Your task to perform on an android device: read, delete, or share a saved page in the chrome app Image 0: 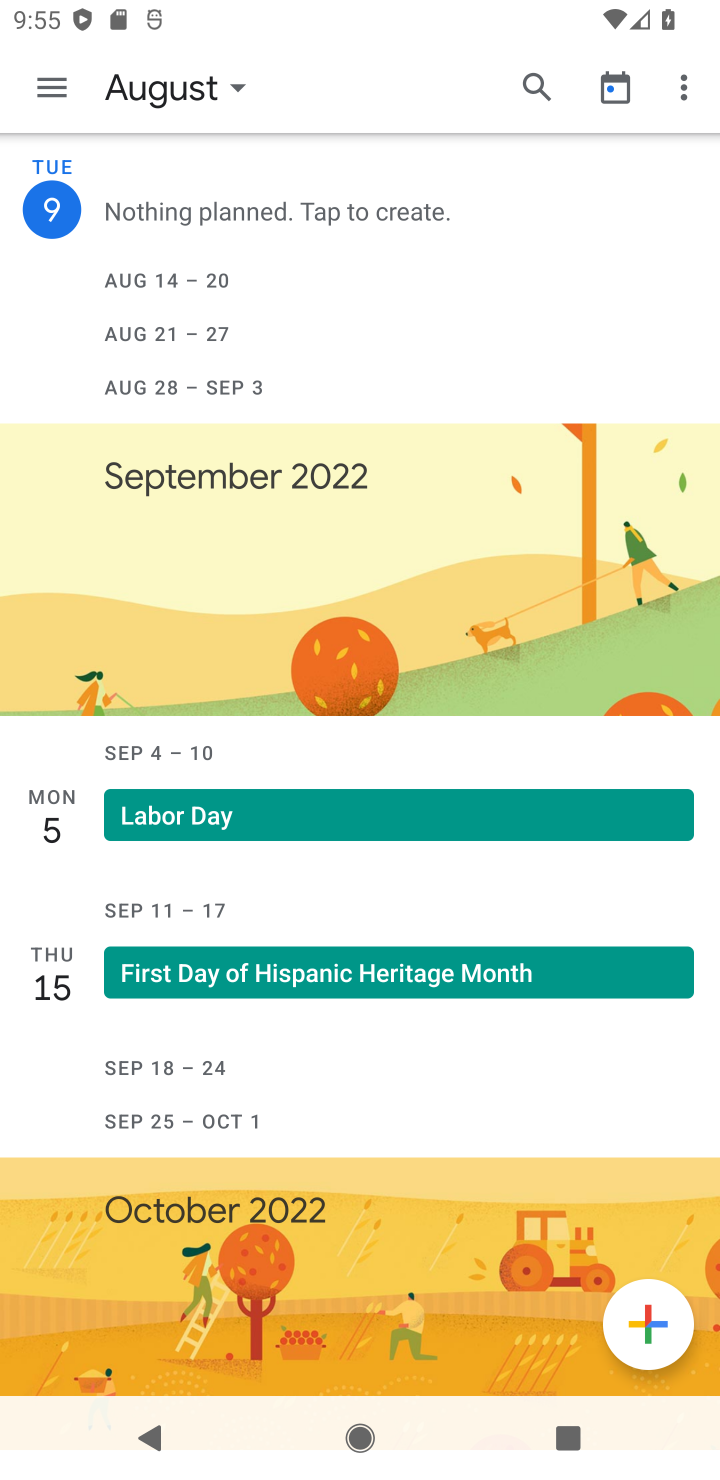
Step 0: press home button
Your task to perform on an android device: read, delete, or share a saved page in the chrome app Image 1: 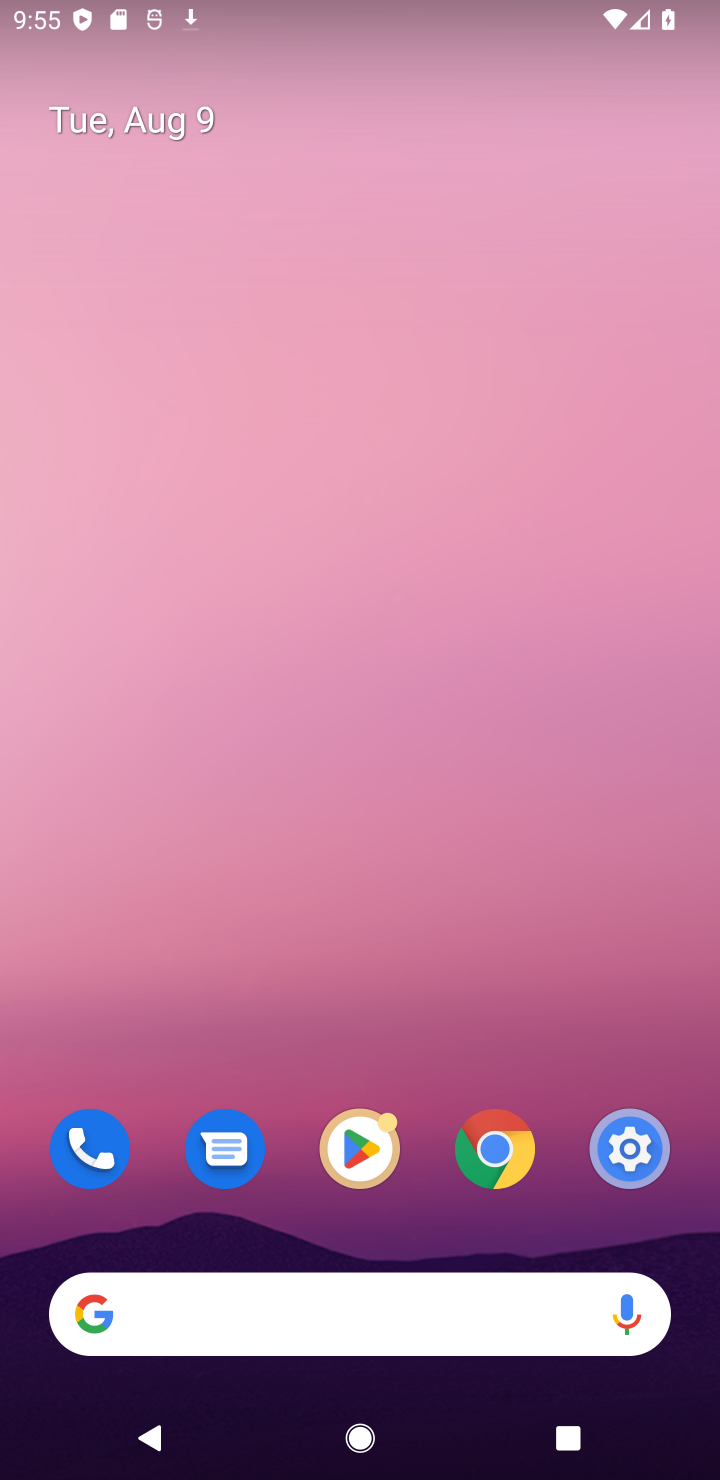
Step 1: click (515, 1152)
Your task to perform on an android device: read, delete, or share a saved page in the chrome app Image 2: 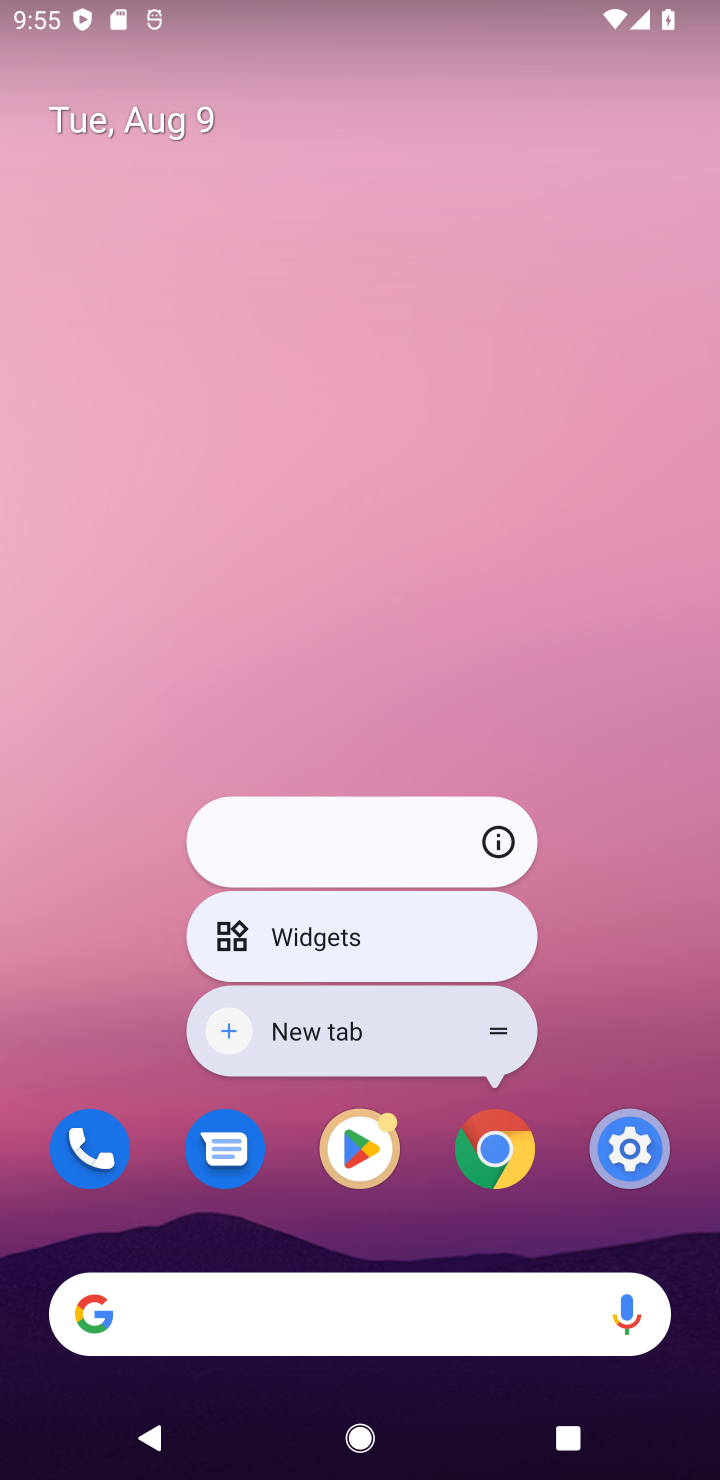
Step 2: click (482, 1158)
Your task to perform on an android device: read, delete, or share a saved page in the chrome app Image 3: 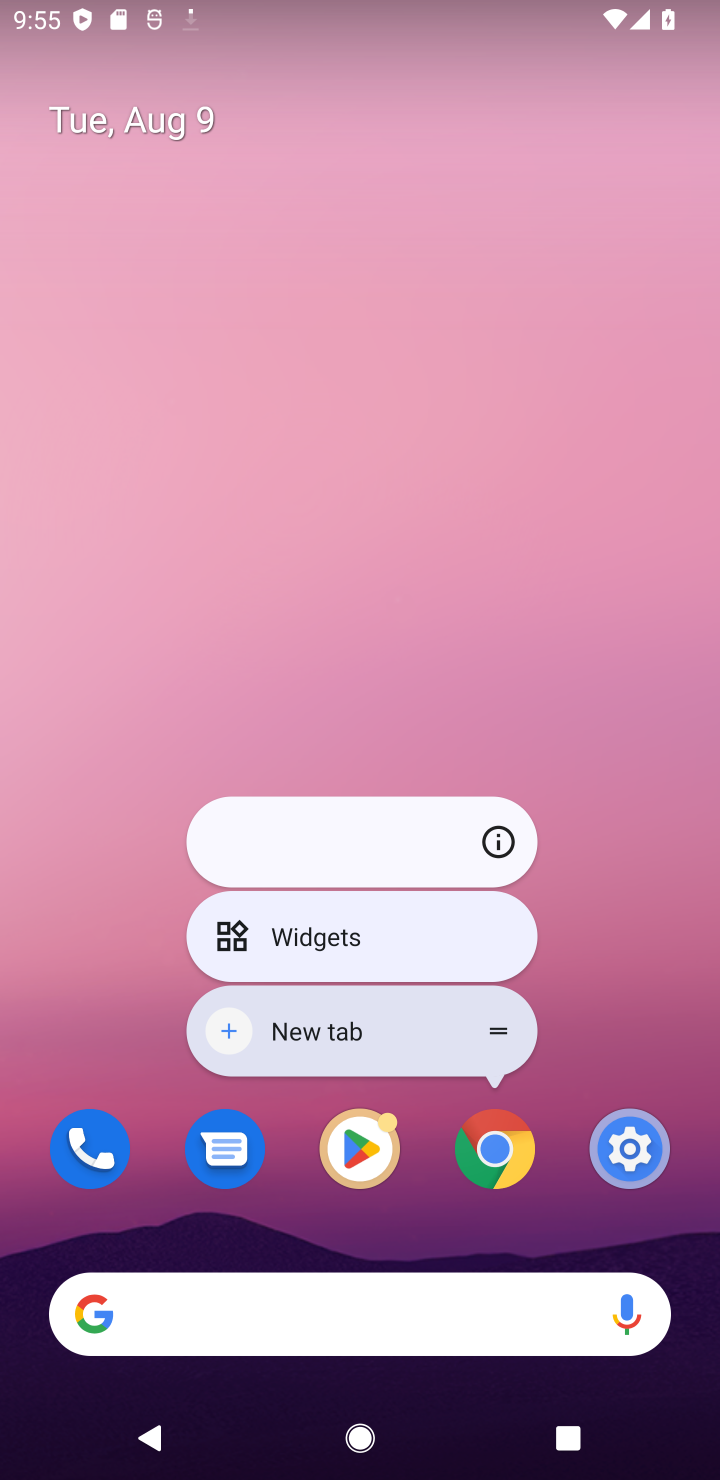
Step 3: click (489, 1164)
Your task to perform on an android device: read, delete, or share a saved page in the chrome app Image 4: 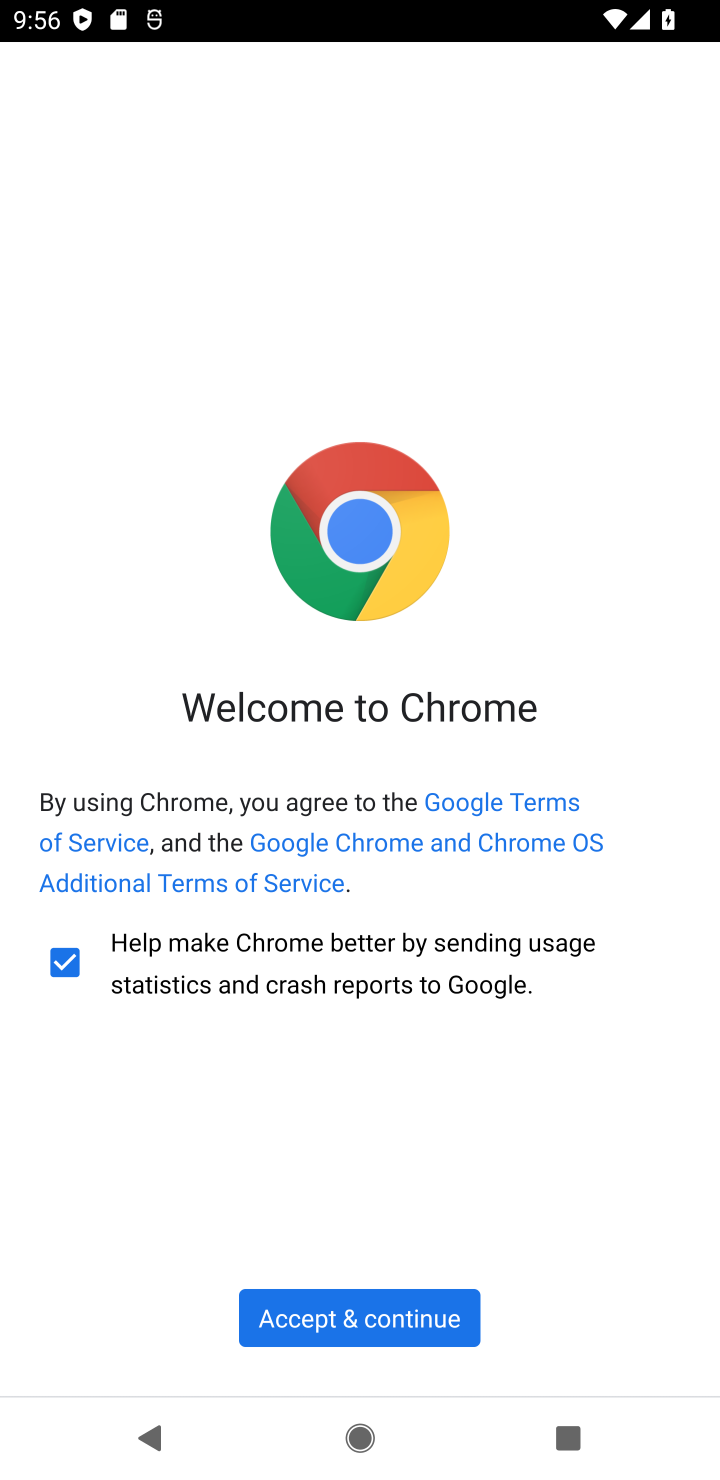
Step 4: click (401, 1335)
Your task to perform on an android device: read, delete, or share a saved page in the chrome app Image 5: 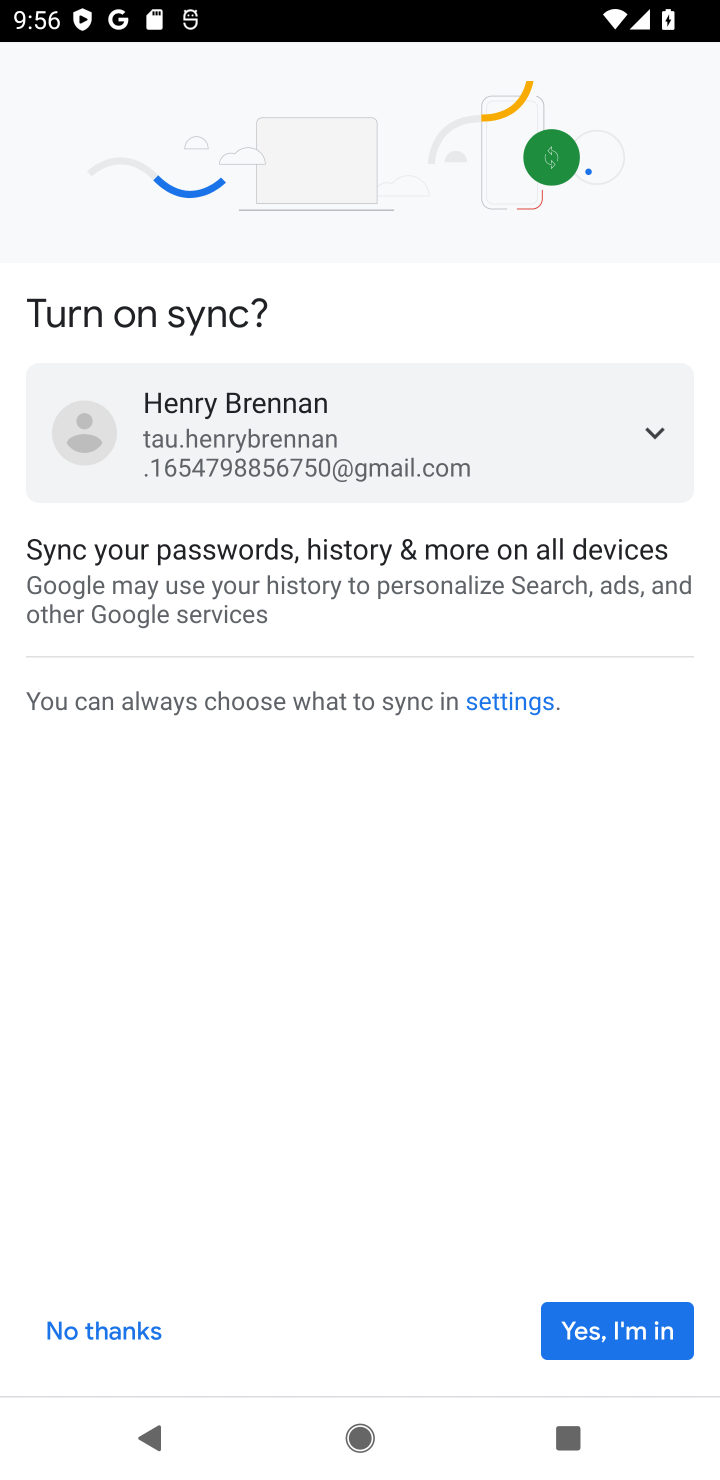
Step 5: click (636, 1320)
Your task to perform on an android device: read, delete, or share a saved page in the chrome app Image 6: 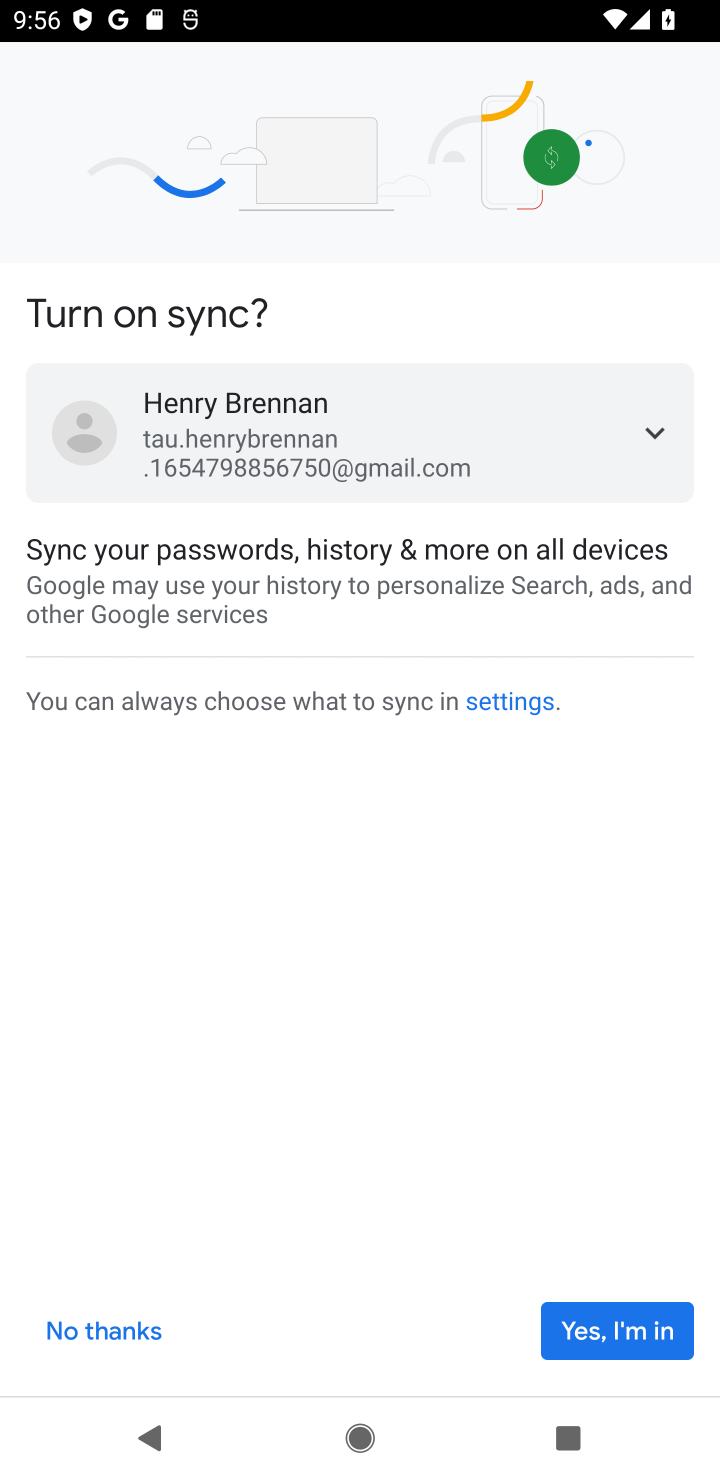
Step 6: click (635, 1334)
Your task to perform on an android device: read, delete, or share a saved page in the chrome app Image 7: 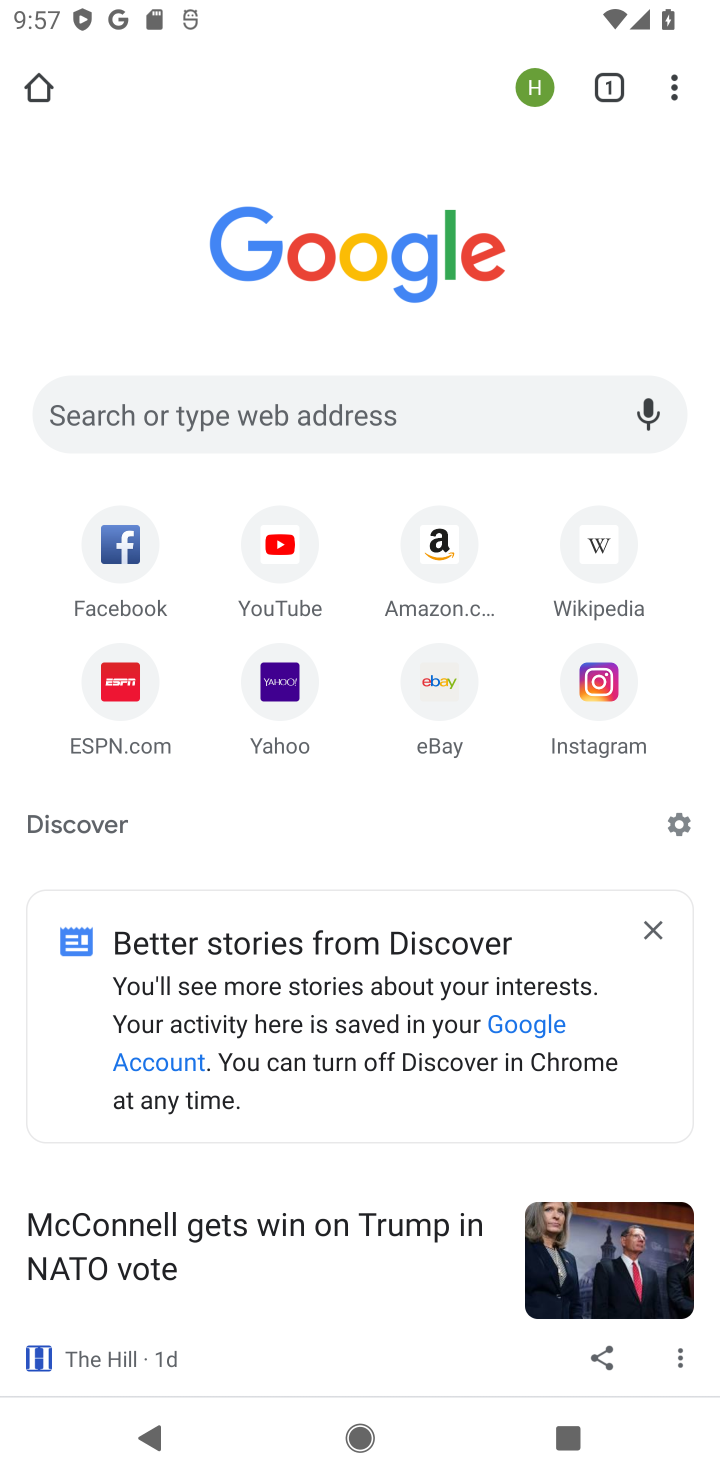
Step 7: click (665, 85)
Your task to perform on an android device: read, delete, or share a saved page in the chrome app Image 8: 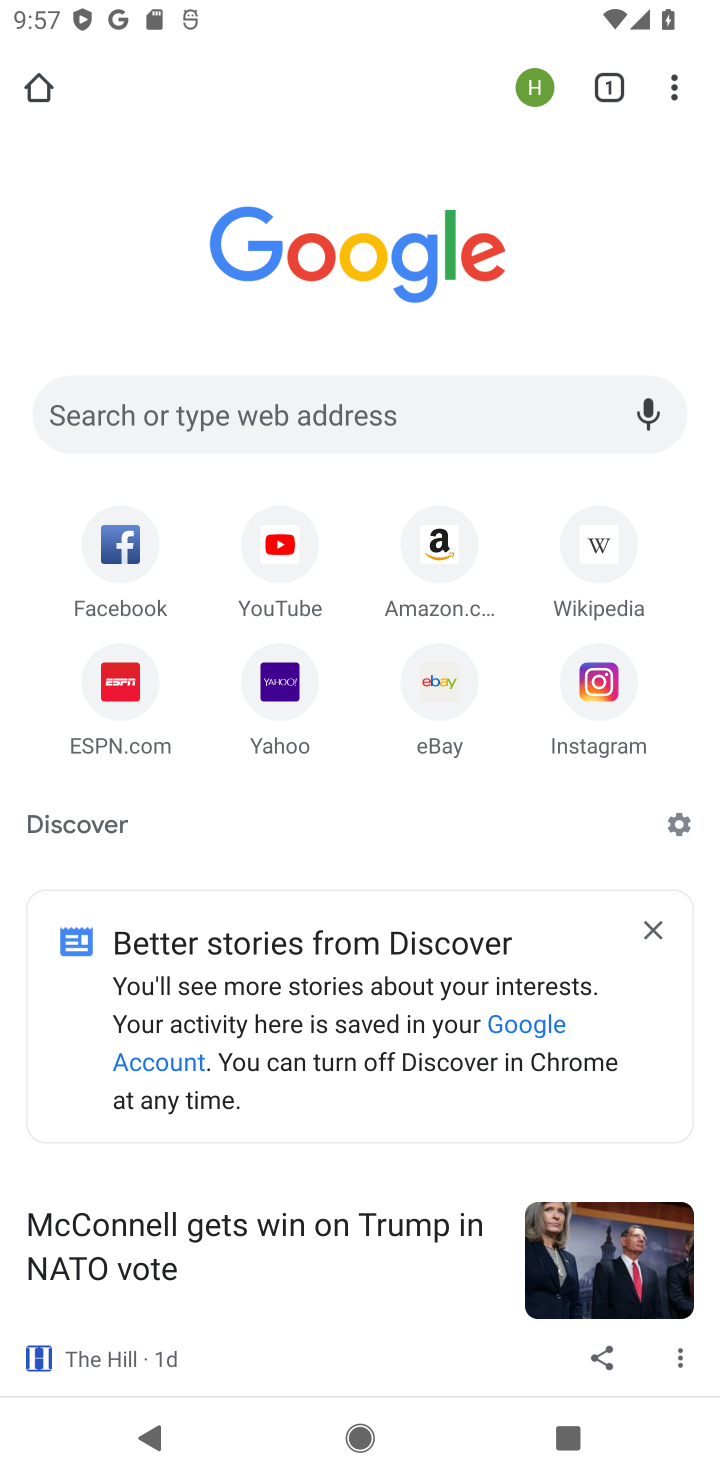
Step 8: click (666, 85)
Your task to perform on an android device: read, delete, or share a saved page in the chrome app Image 9: 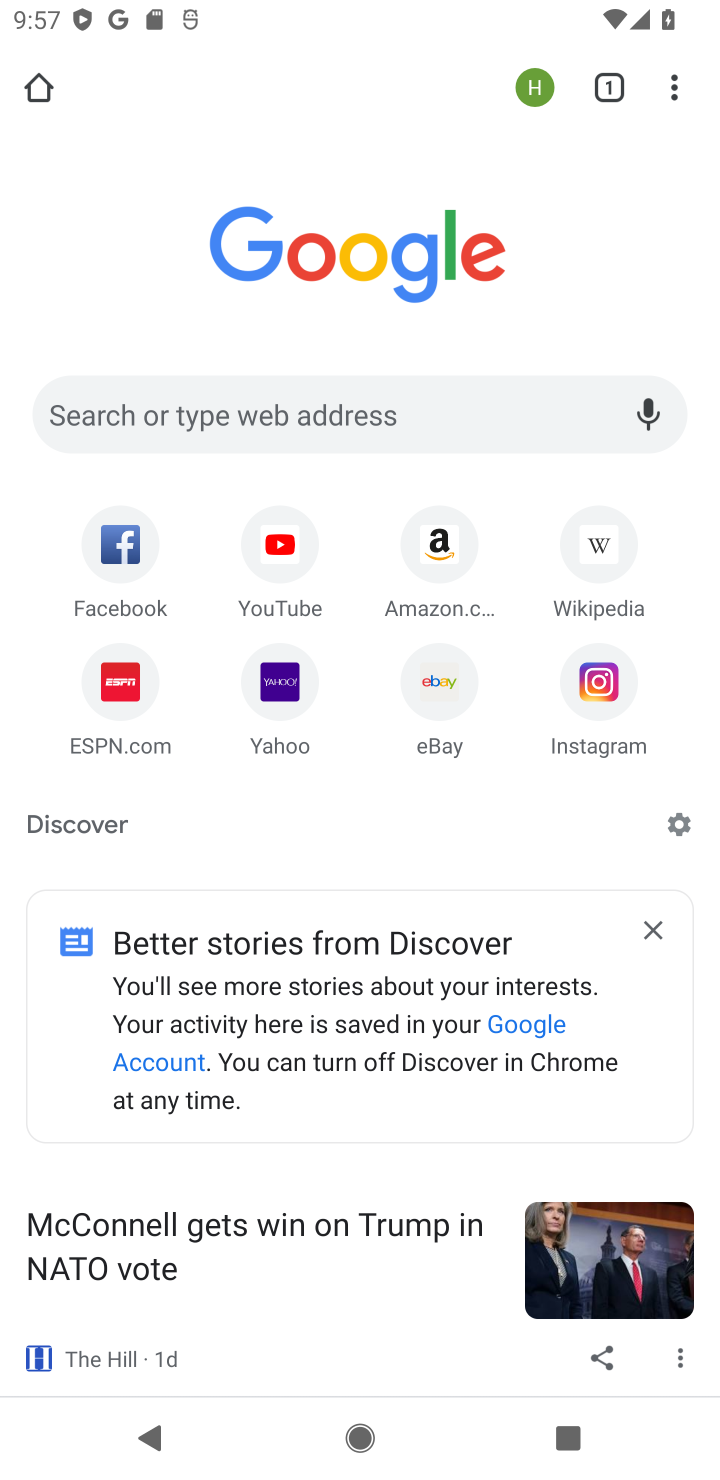
Step 9: click (674, 82)
Your task to perform on an android device: read, delete, or share a saved page in the chrome app Image 10: 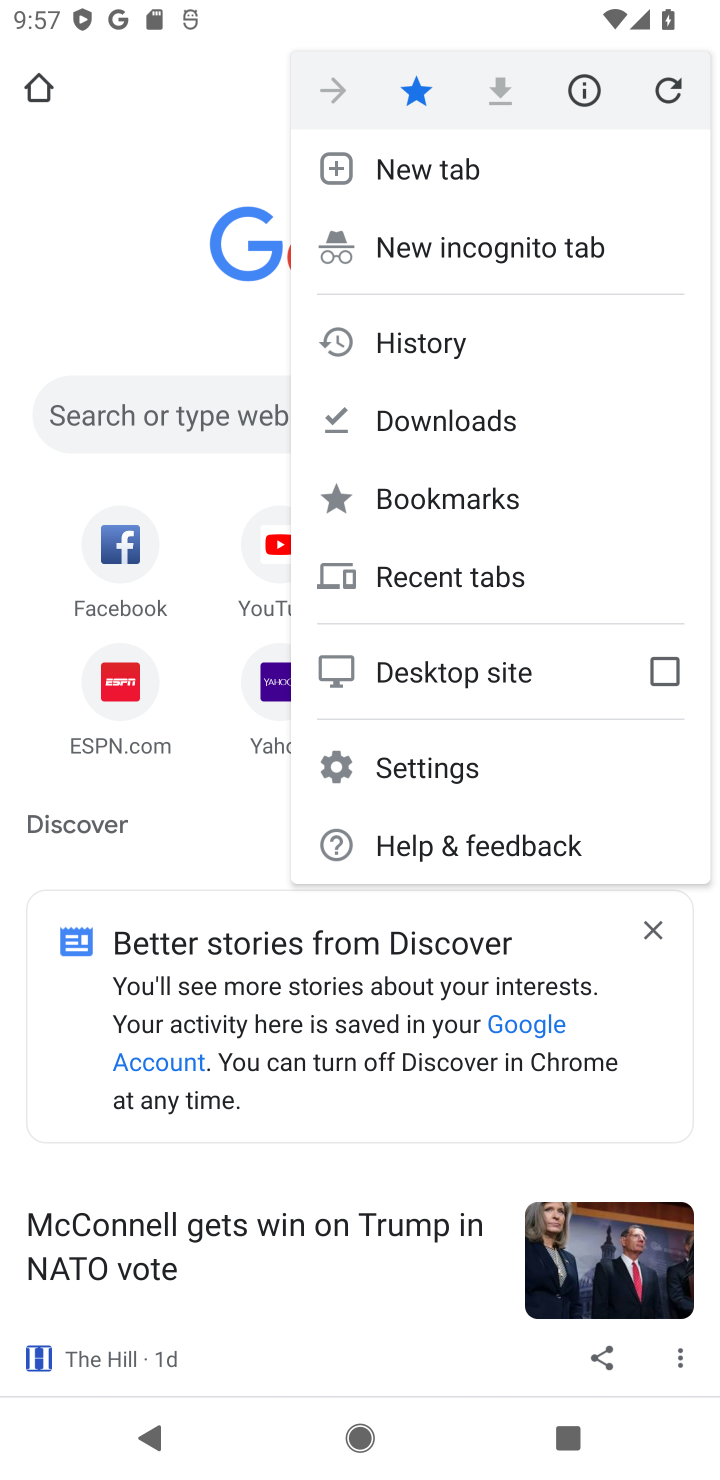
Step 10: click (468, 430)
Your task to perform on an android device: read, delete, or share a saved page in the chrome app Image 11: 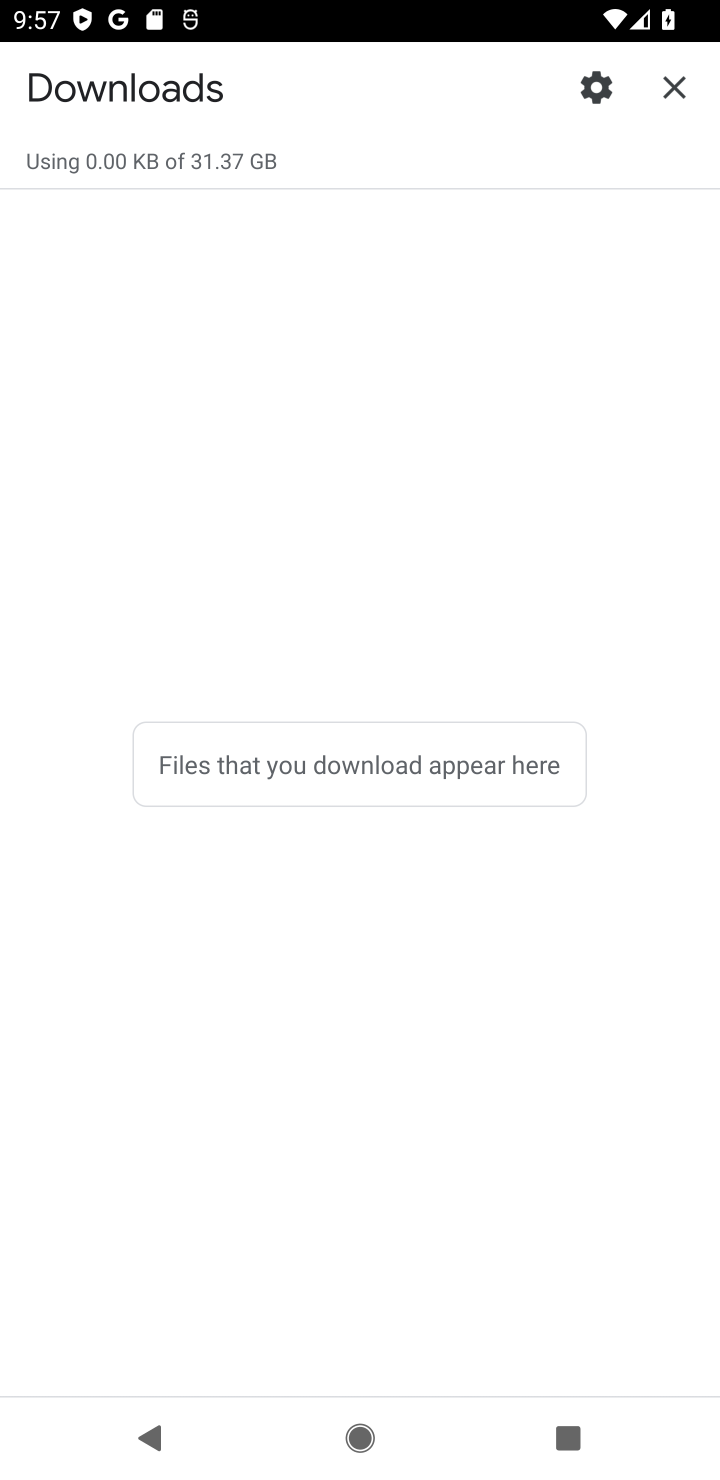
Step 11: task complete